Your task to perform on an android device: change the upload size in google photos Image 0: 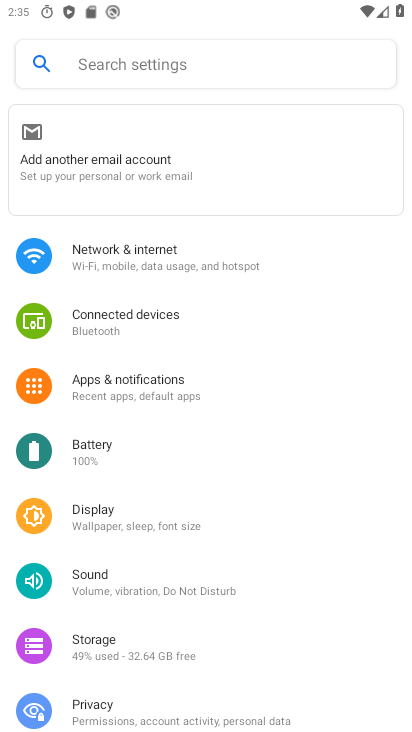
Step 0: press home button
Your task to perform on an android device: change the upload size in google photos Image 1: 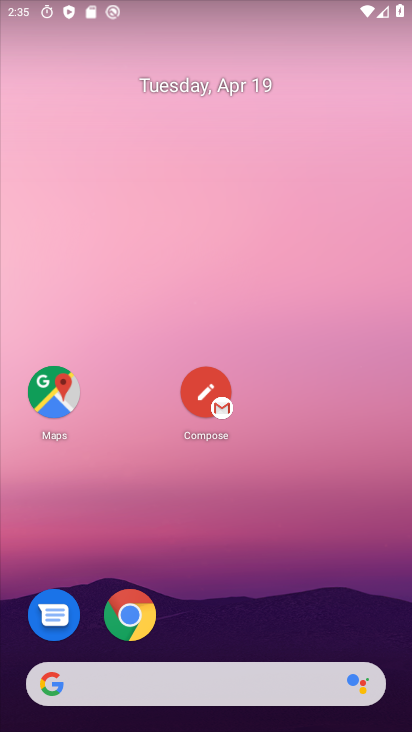
Step 1: drag from (279, 602) to (291, 50)
Your task to perform on an android device: change the upload size in google photos Image 2: 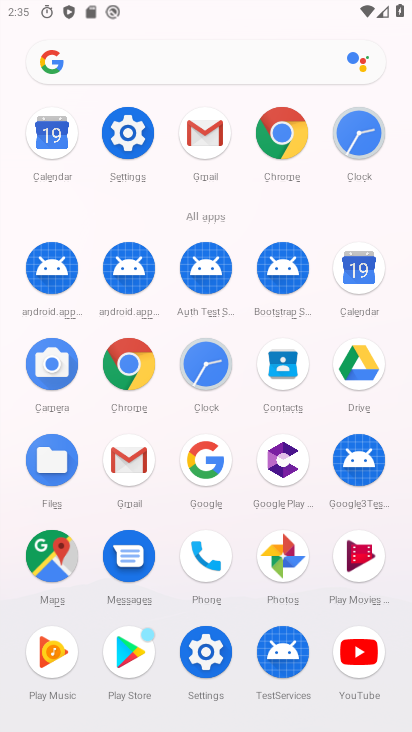
Step 2: click (271, 561)
Your task to perform on an android device: change the upload size in google photos Image 3: 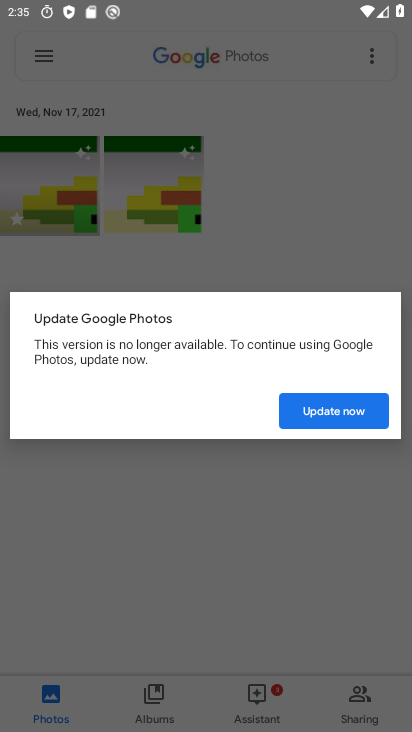
Step 3: click (336, 415)
Your task to perform on an android device: change the upload size in google photos Image 4: 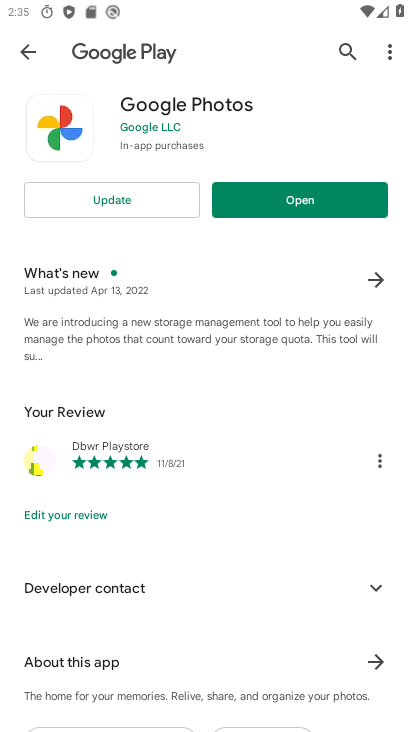
Step 4: click (134, 206)
Your task to perform on an android device: change the upload size in google photos Image 5: 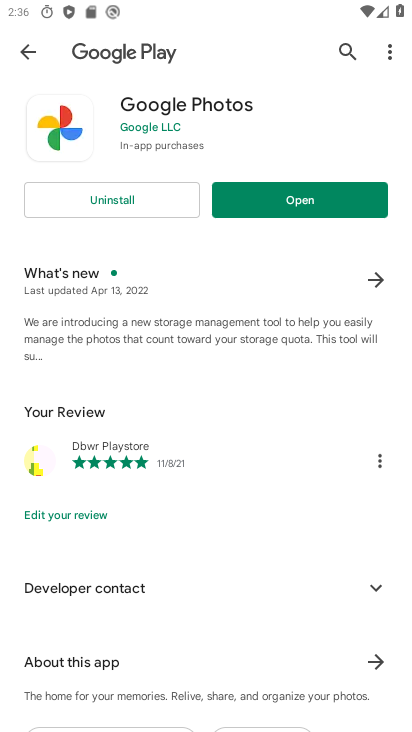
Step 5: click (286, 196)
Your task to perform on an android device: change the upload size in google photos Image 6: 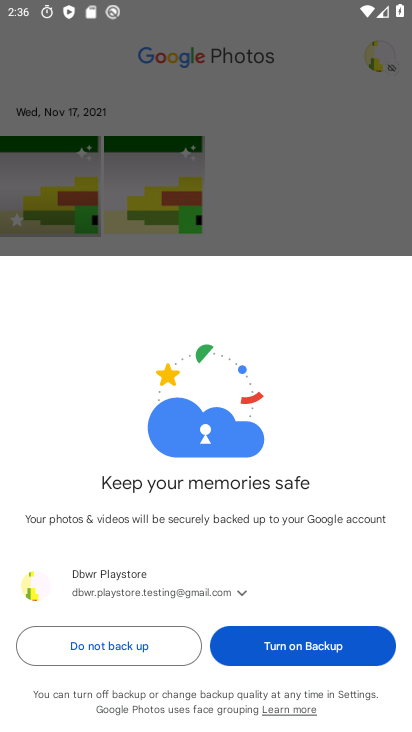
Step 6: click (125, 652)
Your task to perform on an android device: change the upload size in google photos Image 7: 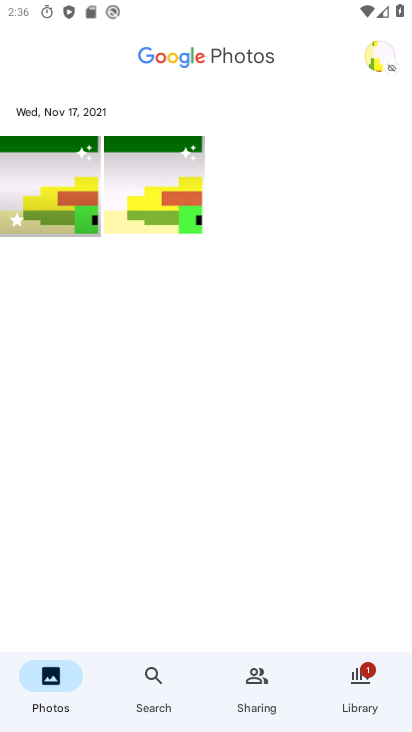
Step 7: click (379, 65)
Your task to perform on an android device: change the upload size in google photos Image 8: 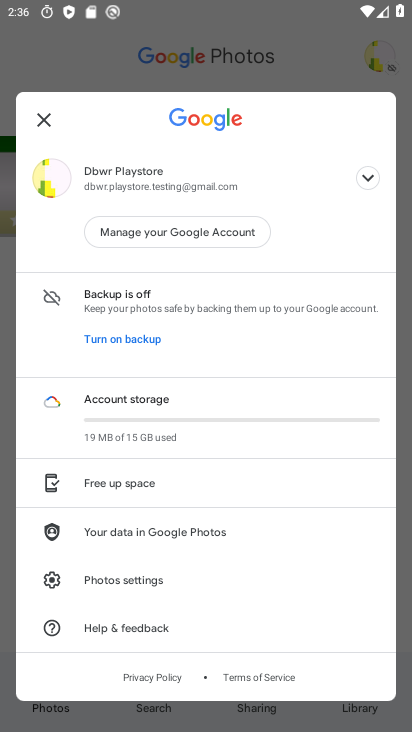
Step 8: click (224, 306)
Your task to perform on an android device: change the upload size in google photos Image 9: 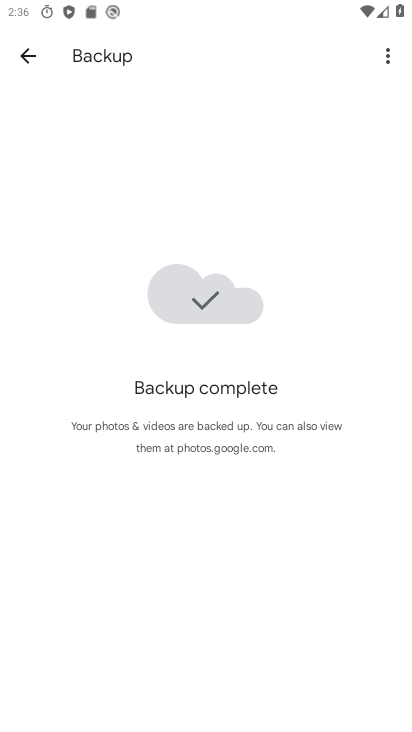
Step 9: click (388, 48)
Your task to perform on an android device: change the upload size in google photos Image 10: 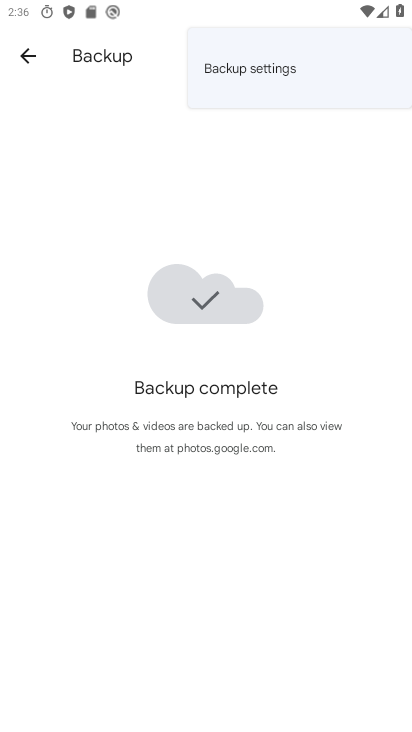
Step 10: click (292, 73)
Your task to perform on an android device: change the upload size in google photos Image 11: 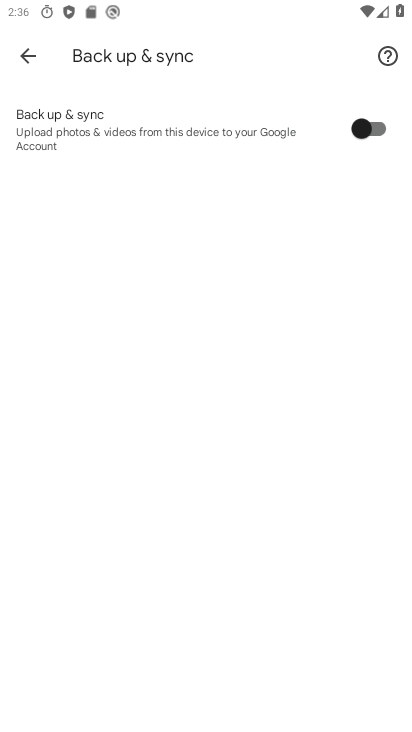
Step 11: click (375, 129)
Your task to perform on an android device: change the upload size in google photos Image 12: 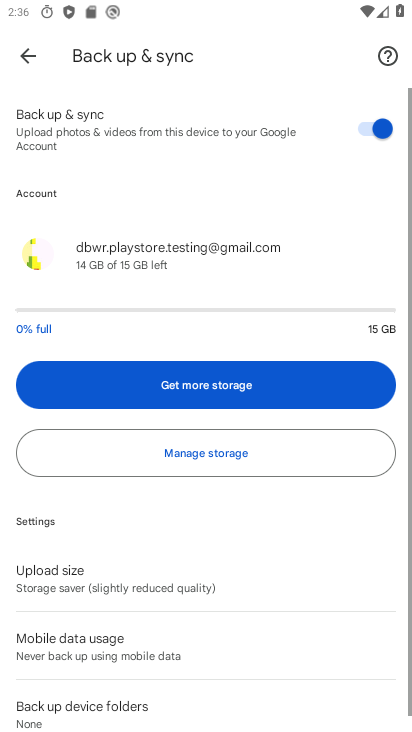
Step 12: drag from (266, 615) to (292, 115)
Your task to perform on an android device: change the upload size in google photos Image 13: 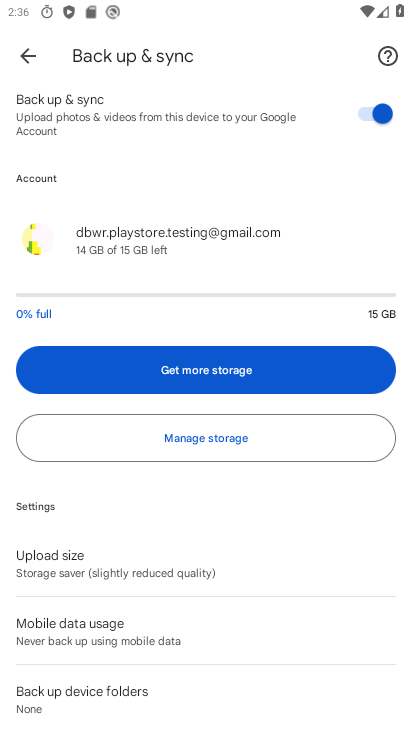
Step 13: click (117, 576)
Your task to perform on an android device: change the upload size in google photos Image 14: 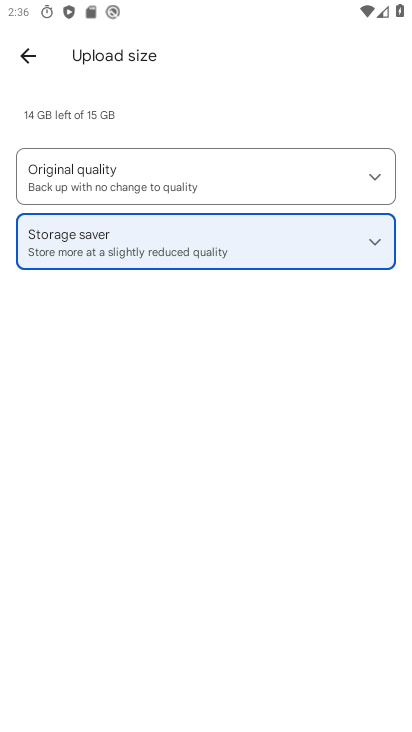
Step 14: click (144, 172)
Your task to perform on an android device: change the upload size in google photos Image 15: 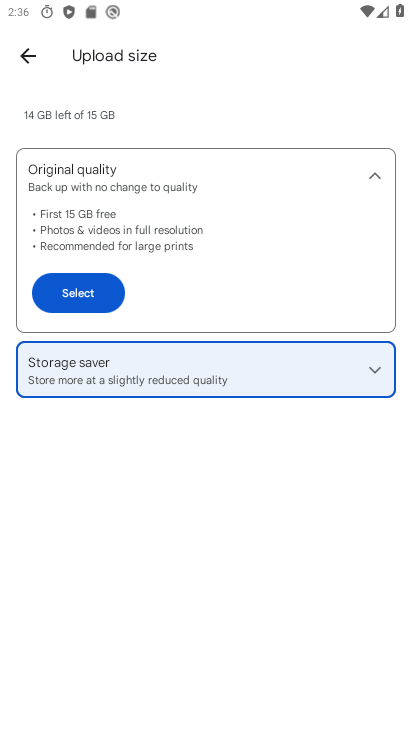
Step 15: click (89, 292)
Your task to perform on an android device: change the upload size in google photos Image 16: 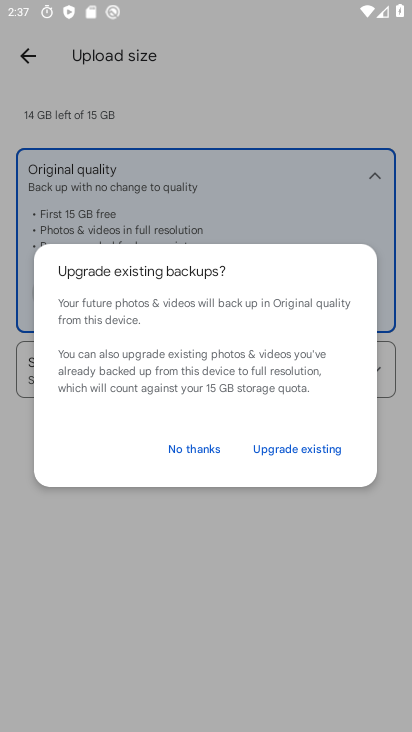
Step 16: click (267, 448)
Your task to perform on an android device: change the upload size in google photos Image 17: 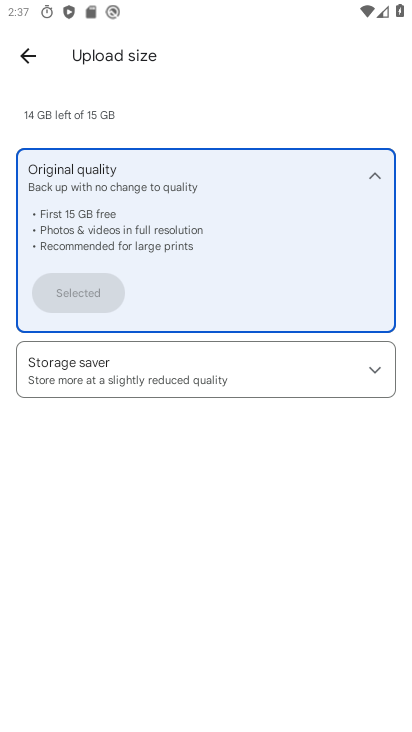
Step 17: task complete